Your task to perform on an android device: Search for Italian restaurants on Maps Image 0: 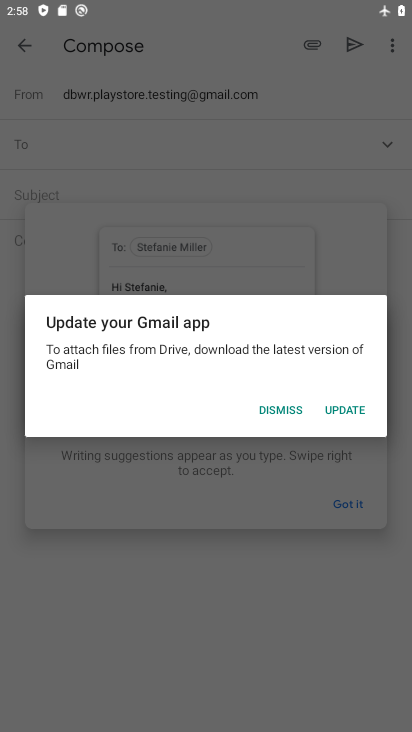
Step 0: press back button
Your task to perform on an android device: Search for Italian restaurants on Maps Image 1: 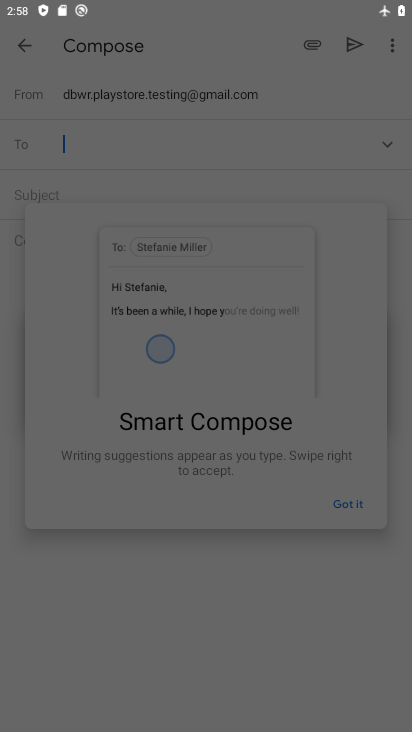
Step 1: press home button
Your task to perform on an android device: Search for Italian restaurants on Maps Image 2: 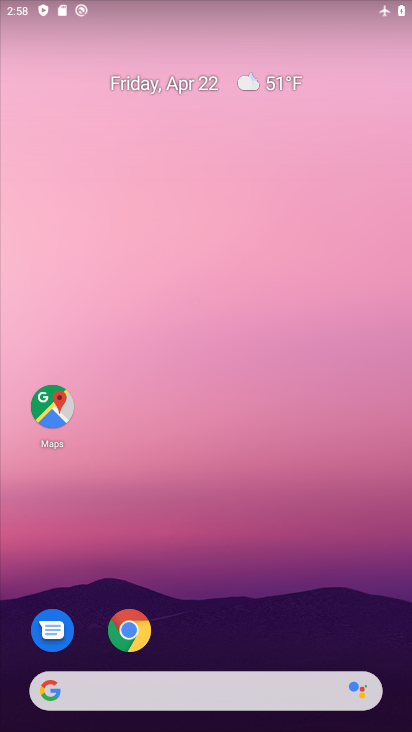
Step 2: drag from (220, 569) to (145, 25)
Your task to perform on an android device: Search for Italian restaurants on Maps Image 3: 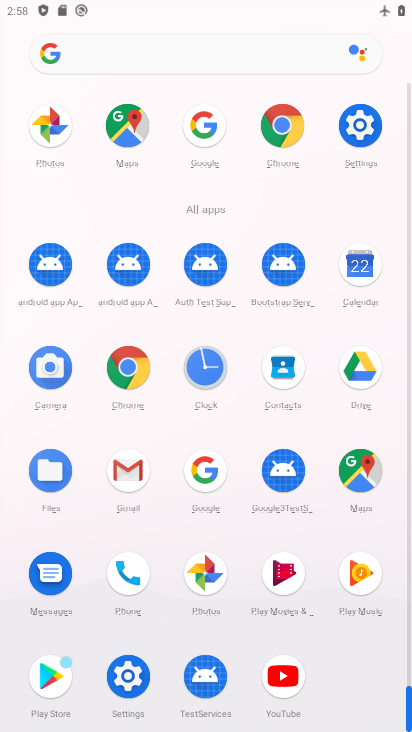
Step 3: drag from (5, 557) to (2, 256)
Your task to perform on an android device: Search for Italian restaurants on Maps Image 4: 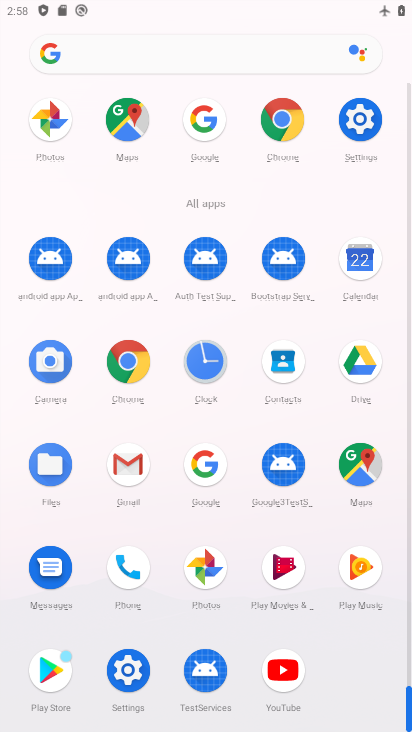
Step 4: click (358, 465)
Your task to perform on an android device: Search for Italian restaurants on Maps Image 5: 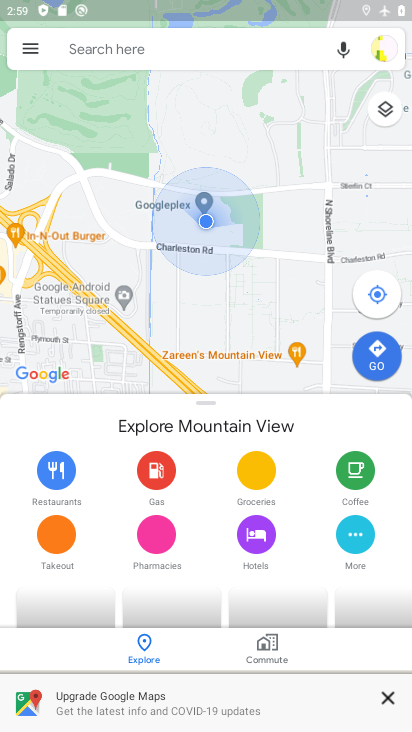
Step 5: click (182, 54)
Your task to perform on an android device: Search for Italian restaurants on Maps Image 6: 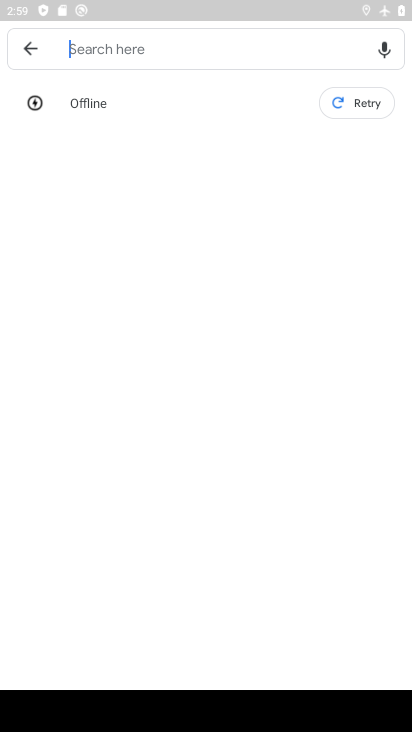
Step 6: type "Italian restaurants"
Your task to perform on an android device: Search for Italian restaurants on Maps Image 7: 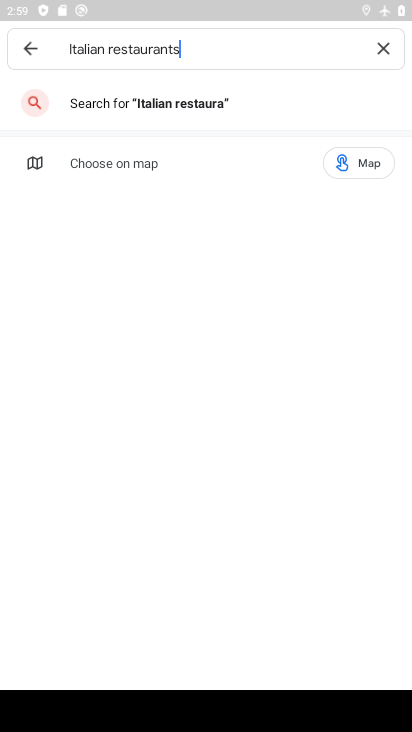
Step 7: type ""
Your task to perform on an android device: Search for Italian restaurants on Maps Image 8: 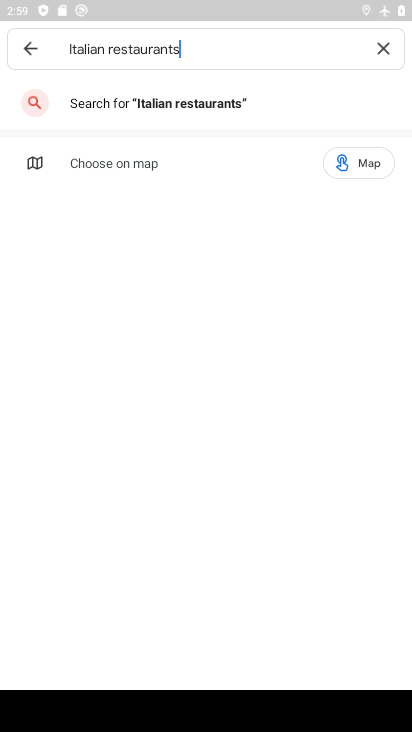
Step 8: click (205, 99)
Your task to perform on an android device: Search for Italian restaurants on Maps Image 9: 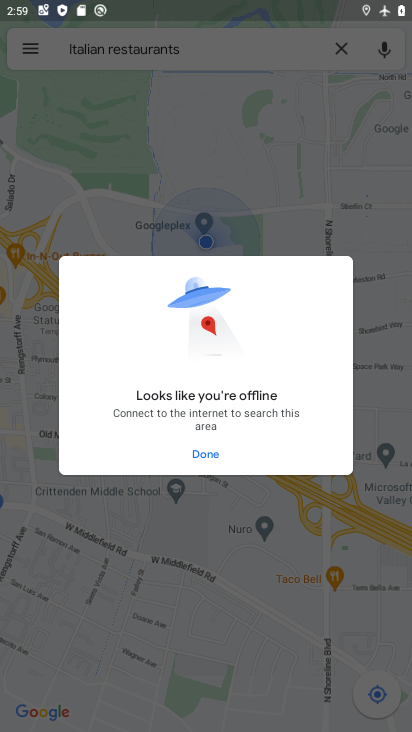
Step 9: task complete